Your task to perform on an android device: turn off airplane mode Image 0: 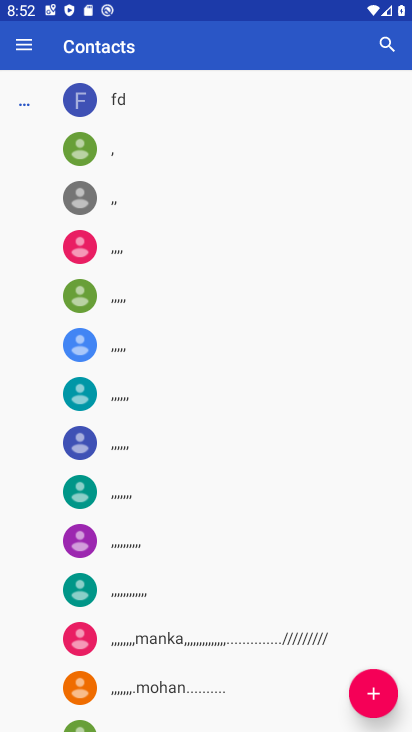
Step 0: press home button
Your task to perform on an android device: turn off airplane mode Image 1: 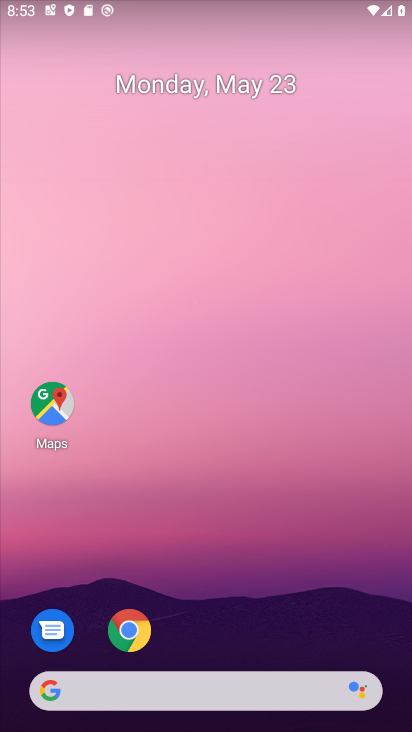
Step 1: drag from (190, 663) to (176, 60)
Your task to perform on an android device: turn off airplane mode Image 2: 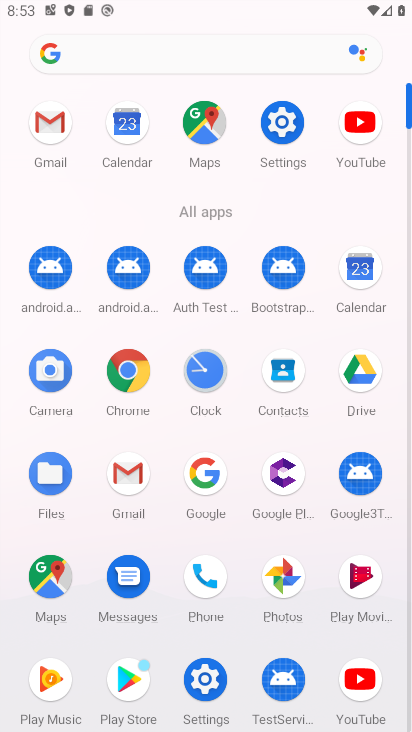
Step 2: click (273, 120)
Your task to perform on an android device: turn off airplane mode Image 3: 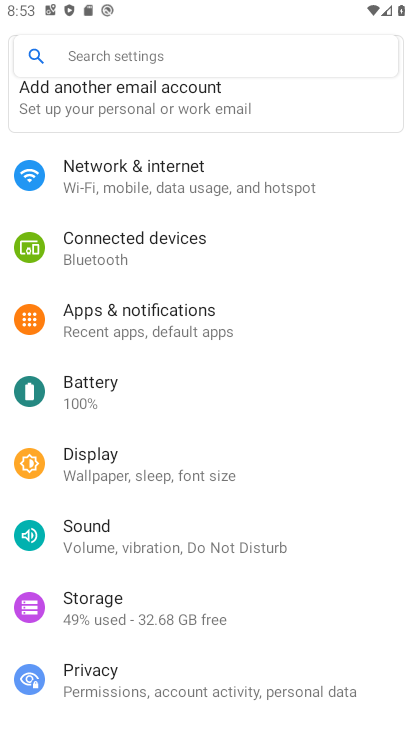
Step 3: click (201, 184)
Your task to perform on an android device: turn off airplane mode Image 4: 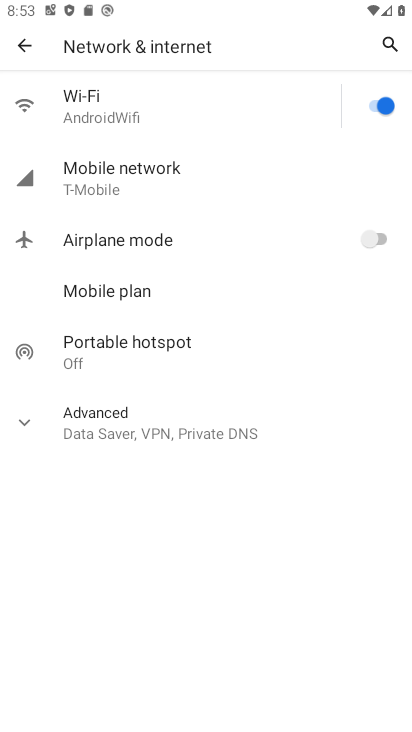
Step 4: task complete